Your task to perform on an android device: see tabs open on other devices in the chrome app Image 0: 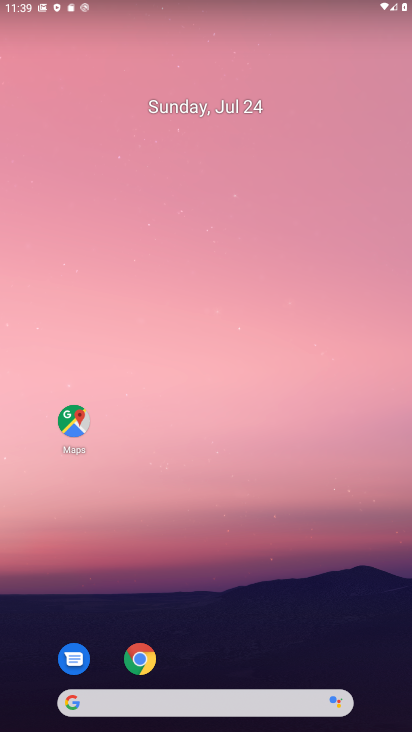
Step 0: click (143, 672)
Your task to perform on an android device: see tabs open on other devices in the chrome app Image 1: 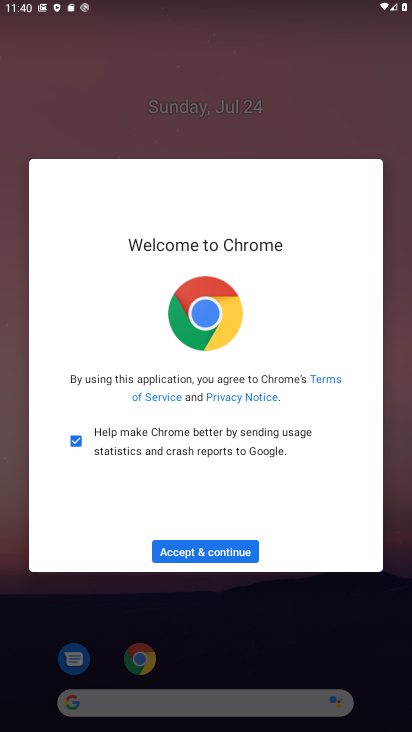
Step 1: click (225, 554)
Your task to perform on an android device: see tabs open on other devices in the chrome app Image 2: 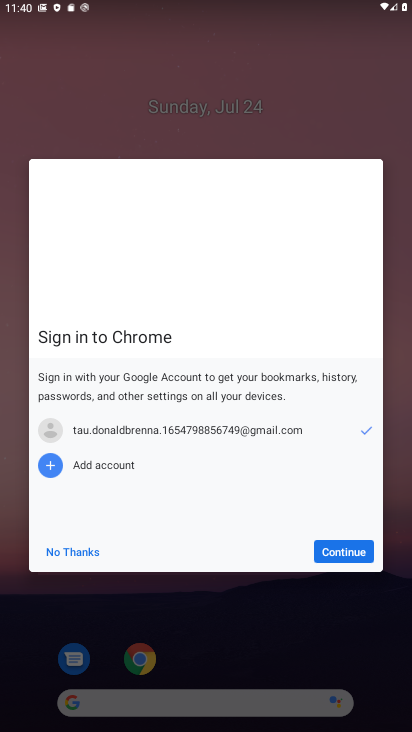
Step 2: click (361, 559)
Your task to perform on an android device: see tabs open on other devices in the chrome app Image 3: 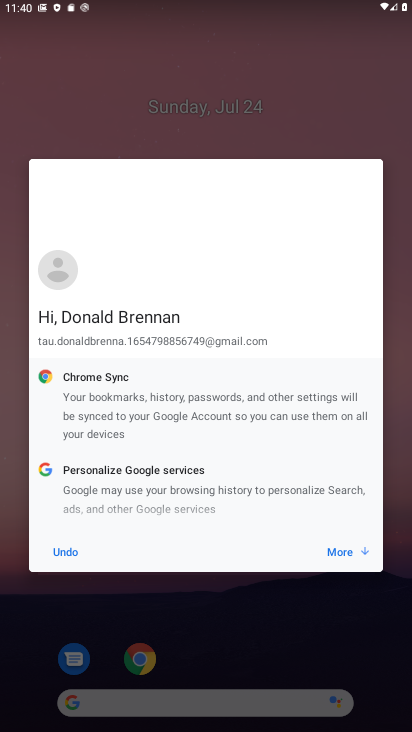
Step 3: click (353, 557)
Your task to perform on an android device: see tabs open on other devices in the chrome app Image 4: 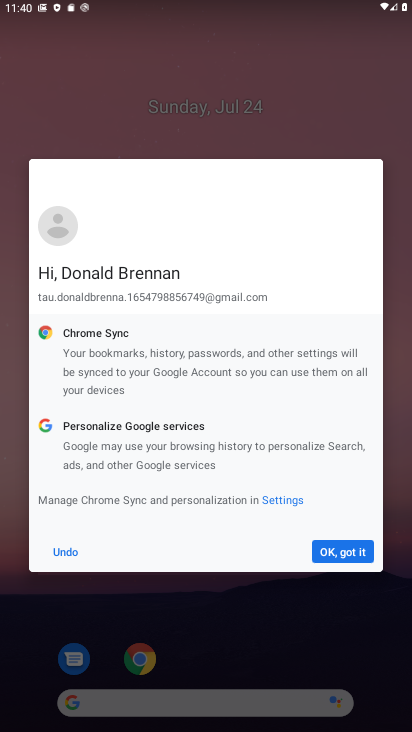
Step 4: click (344, 556)
Your task to perform on an android device: see tabs open on other devices in the chrome app Image 5: 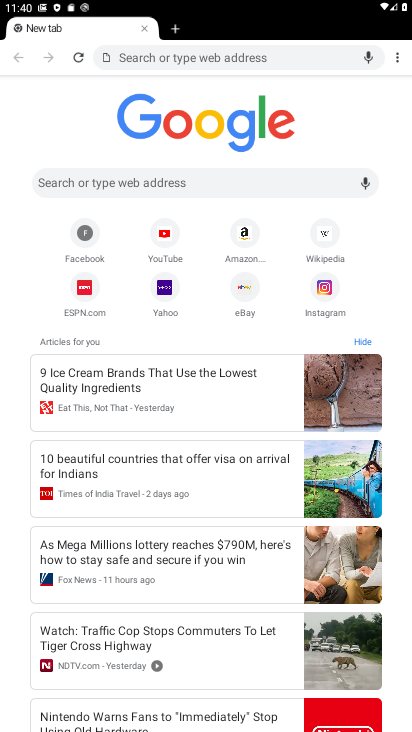
Step 5: task complete